Your task to perform on an android device: turn off sleep mode Image 0: 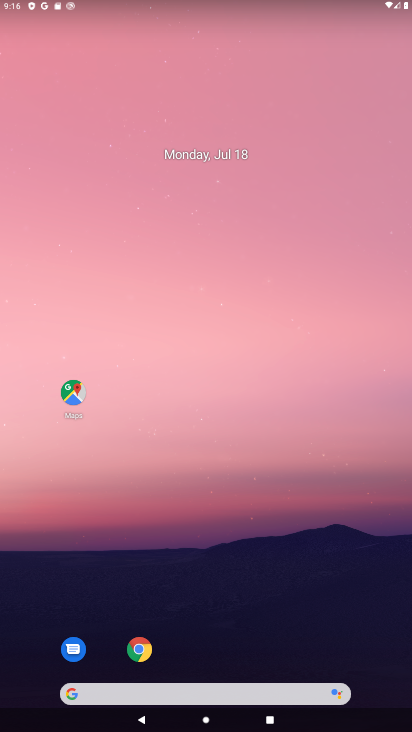
Step 0: task complete